Your task to perform on an android device: check storage Image 0: 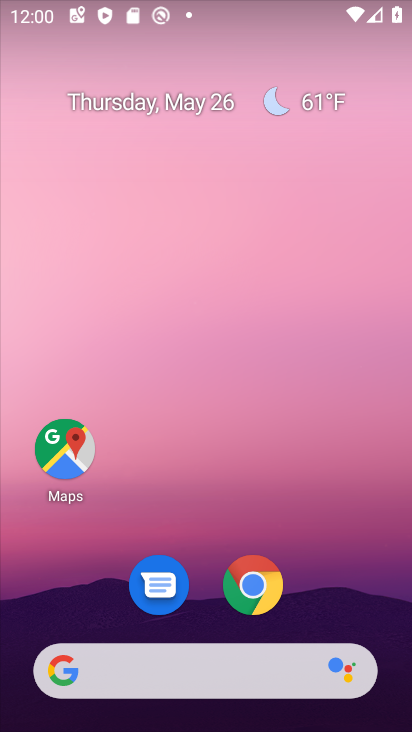
Step 0: drag from (250, 483) to (219, 51)
Your task to perform on an android device: check storage Image 1: 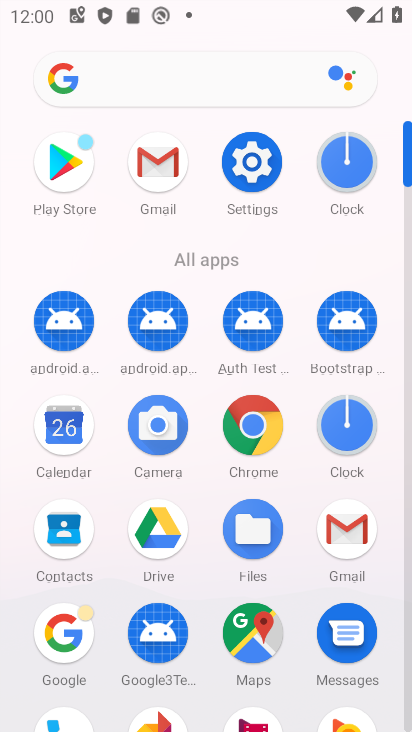
Step 1: click (260, 177)
Your task to perform on an android device: check storage Image 2: 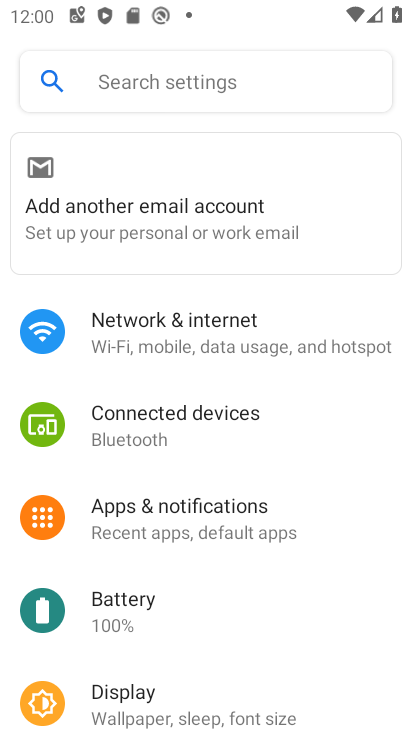
Step 2: drag from (211, 588) to (198, 187)
Your task to perform on an android device: check storage Image 3: 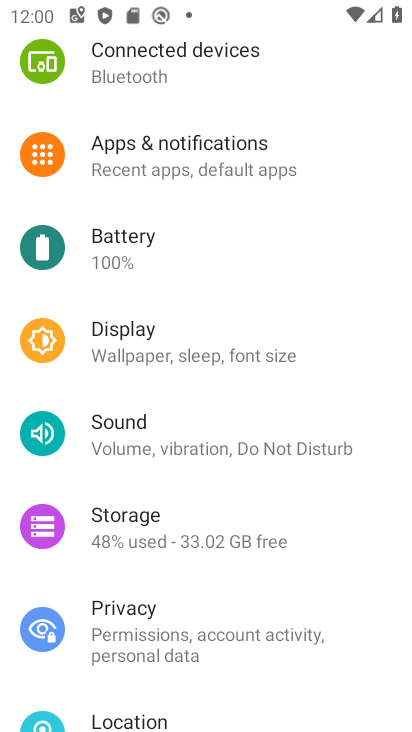
Step 3: click (183, 532)
Your task to perform on an android device: check storage Image 4: 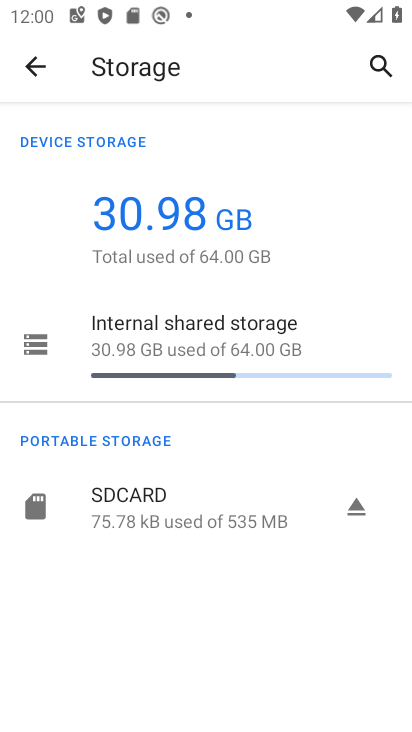
Step 4: task complete